Your task to perform on an android device: View the shopping cart on bestbuy. Image 0: 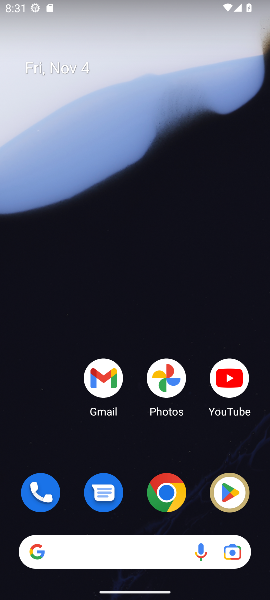
Step 0: drag from (134, 450) to (132, 56)
Your task to perform on an android device: View the shopping cart on bestbuy. Image 1: 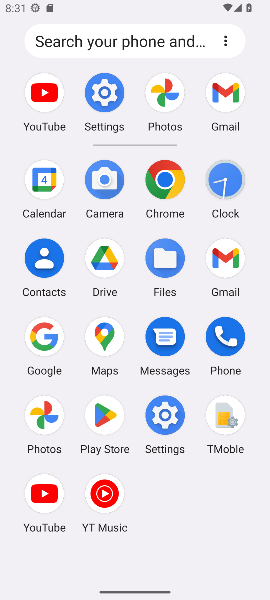
Step 1: click (166, 179)
Your task to perform on an android device: View the shopping cart on bestbuy. Image 2: 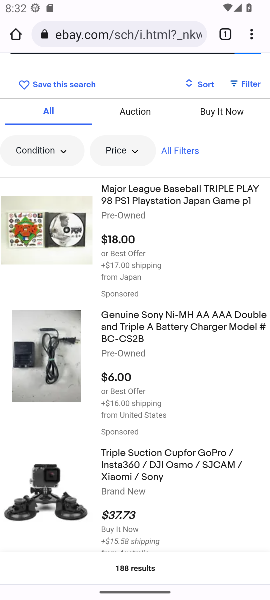
Step 2: click (159, 26)
Your task to perform on an android device: View the shopping cart on bestbuy. Image 3: 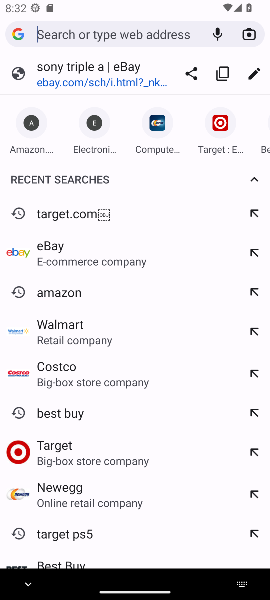
Step 3: type "bestbuy.com"
Your task to perform on an android device: View the shopping cart on bestbuy. Image 4: 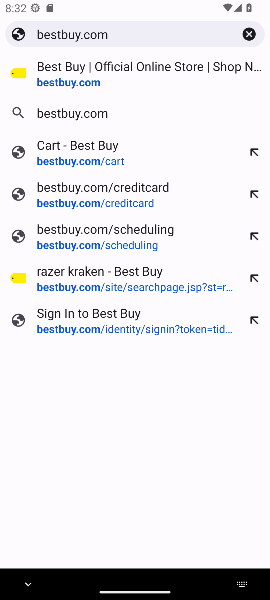
Step 4: press enter
Your task to perform on an android device: View the shopping cart on bestbuy. Image 5: 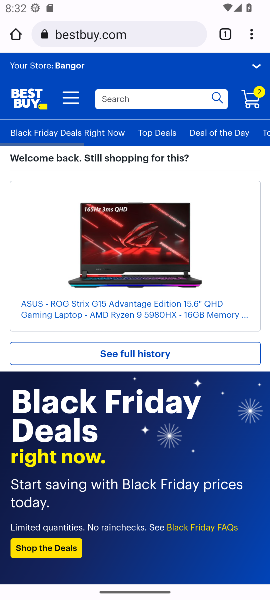
Step 5: click (263, 94)
Your task to perform on an android device: View the shopping cart on bestbuy. Image 6: 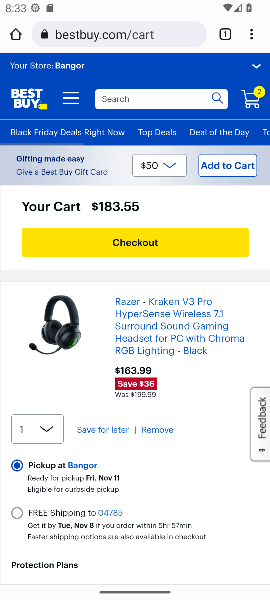
Step 6: click (253, 98)
Your task to perform on an android device: View the shopping cart on bestbuy. Image 7: 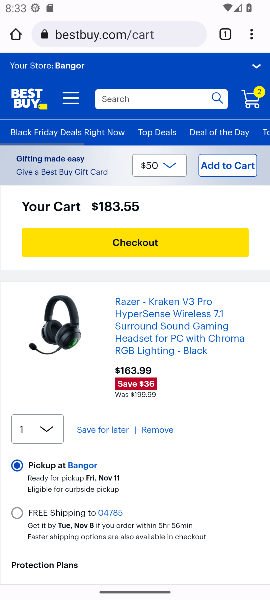
Step 7: task complete